Your task to perform on an android device: Open Maps and search for coffee Image 0: 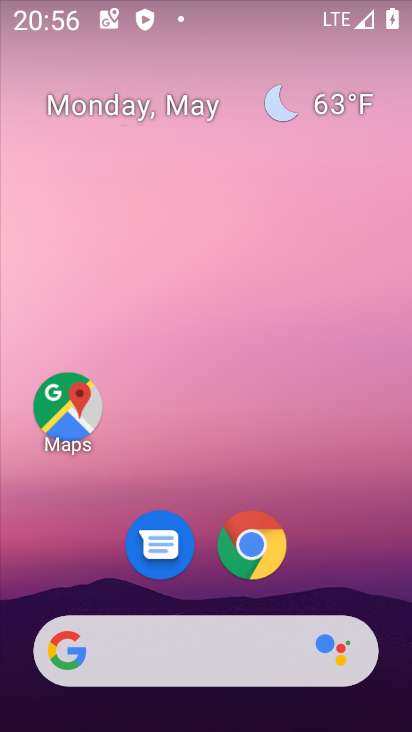
Step 0: click (54, 414)
Your task to perform on an android device: Open Maps and search for coffee Image 1: 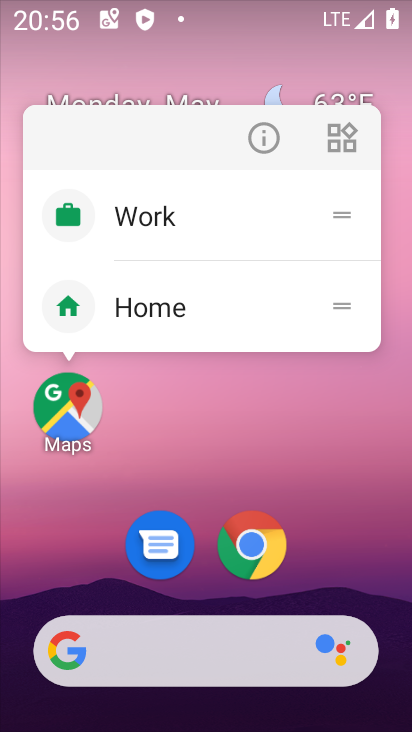
Step 1: click (52, 420)
Your task to perform on an android device: Open Maps and search for coffee Image 2: 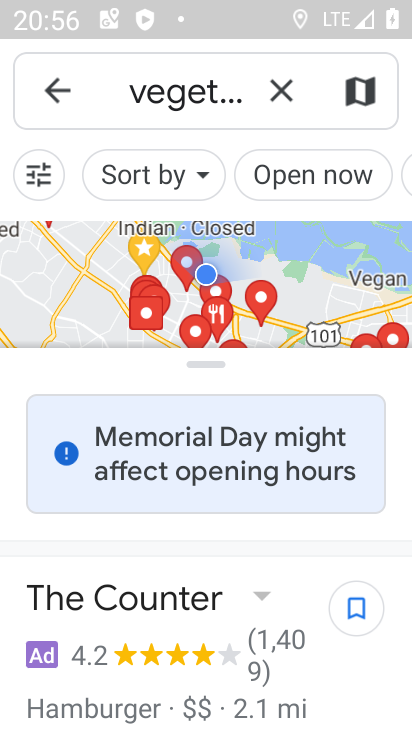
Step 2: click (274, 92)
Your task to perform on an android device: Open Maps and search for coffee Image 3: 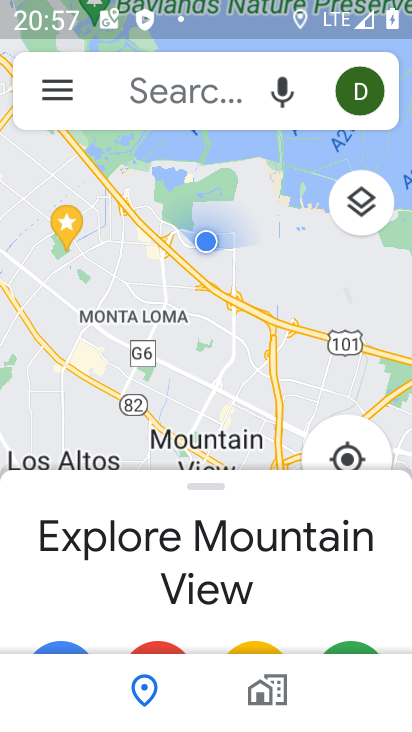
Step 3: click (212, 100)
Your task to perform on an android device: Open Maps and search for coffee Image 4: 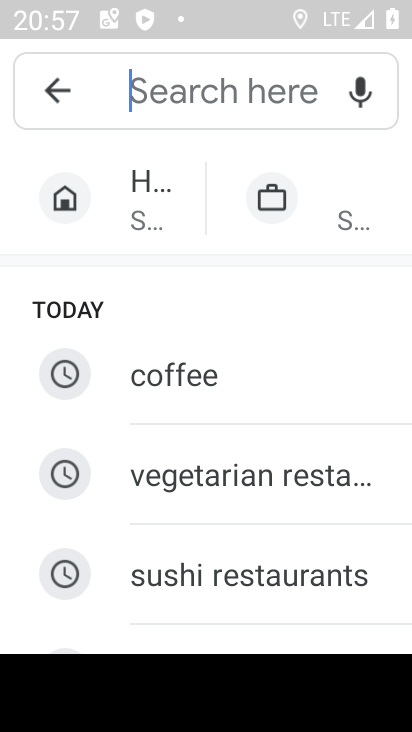
Step 4: click (220, 370)
Your task to perform on an android device: Open Maps and search for coffee Image 5: 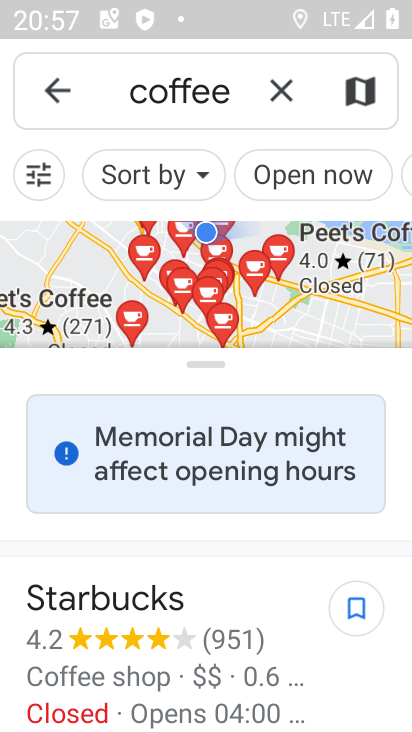
Step 5: task complete